Your task to perform on an android device: Open calendar and show me the first week of next month Image 0: 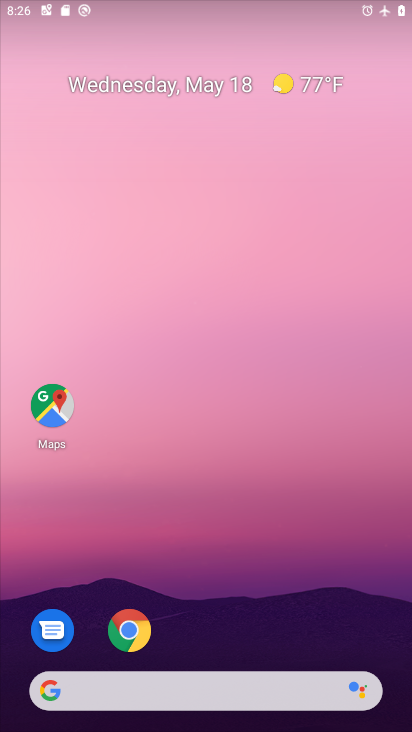
Step 0: drag from (181, 628) to (221, 190)
Your task to perform on an android device: Open calendar and show me the first week of next month Image 1: 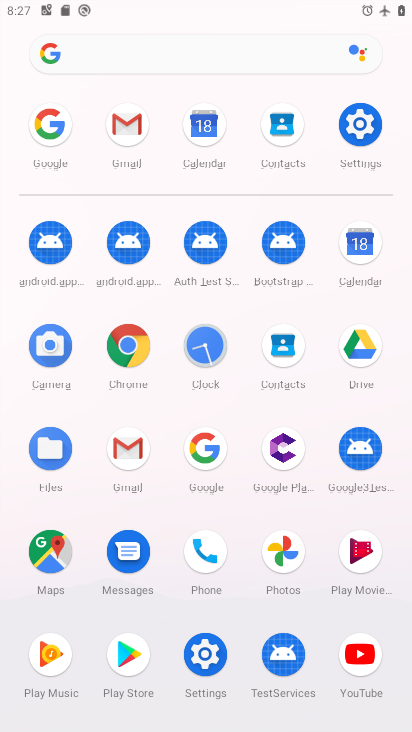
Step 1: click (363, 245)
Your task to perform on an android device: Open calendar and show me the first week of next month Image 2: 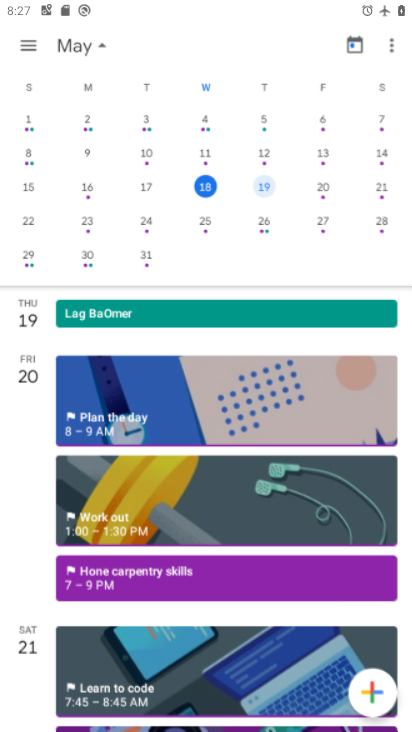
Step 2: drag from (344, 219) to (0, 209)
Your task to perform on an android device: Open calendar and show me the first week of next month Image 3: 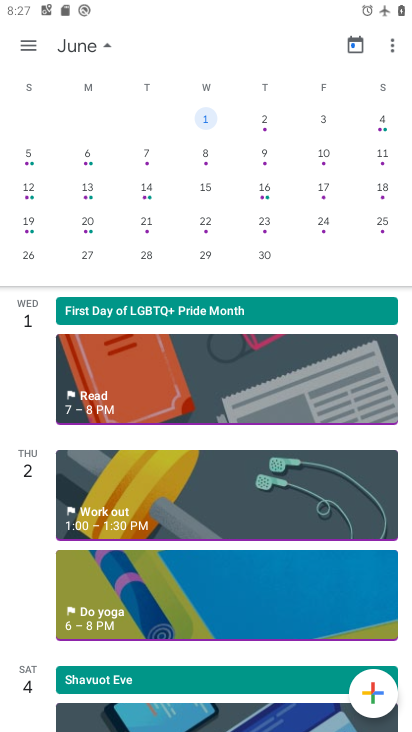
Step 3: click (204, 123)
Your task to perform on an android device: Open calendar and show me the first week of next month Image 4: 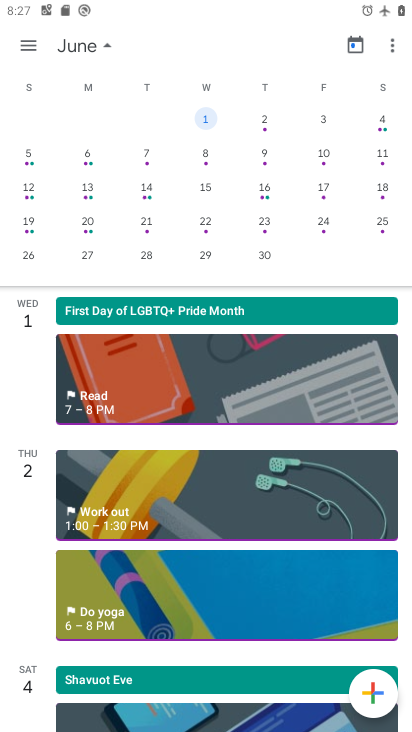
Step 4: click (261, 126)
Your task to perform on an android device: Open calendar and show me the first week of next month Image 5: 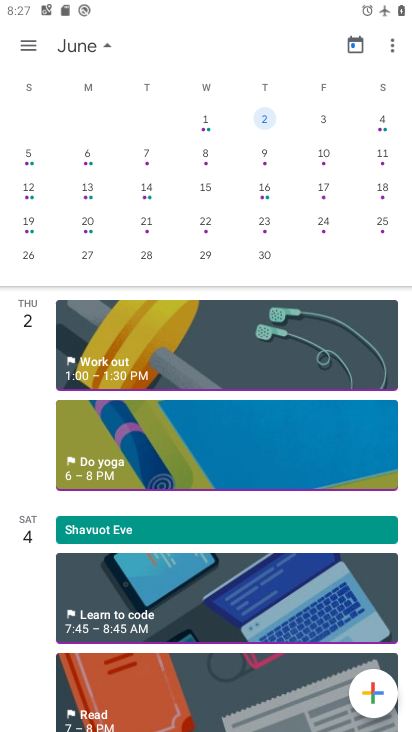
Step 5: click (332, 123)
Your task to perform on an android device: Open calendar and show me the first week of next month Image 6: 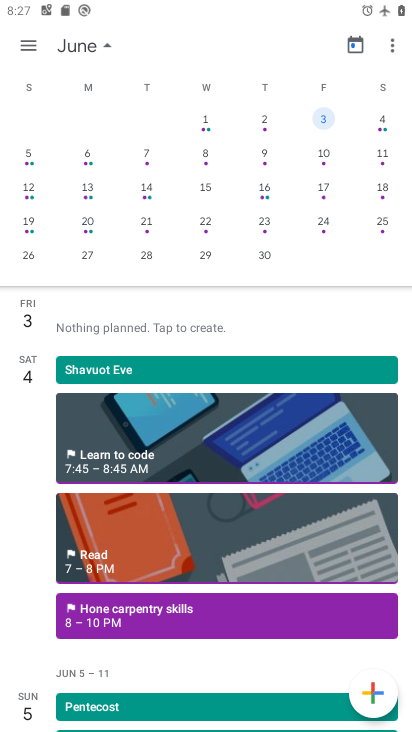
Step 6: click (403, 124)
Your task to perform on an android device: Open calendar and show me the first week of next month Image 7: 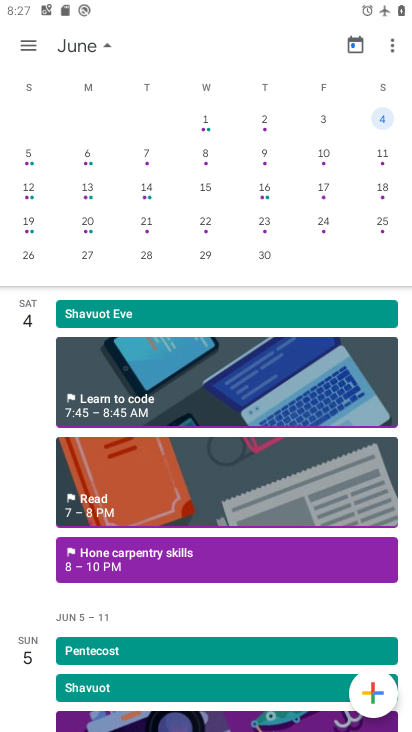
Step 7: task complete